Your task to perform on an android device: Go to location settings Image 0: 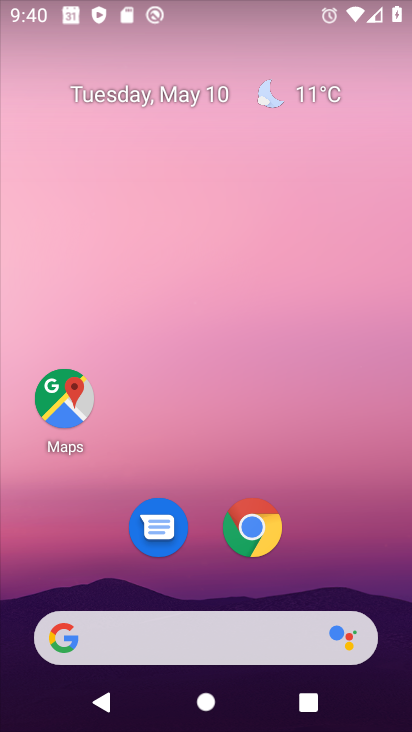
Step 0: drag from (312, 585) to (283, 17)
Your task to perform on an android device: Go to location settings Image 1: 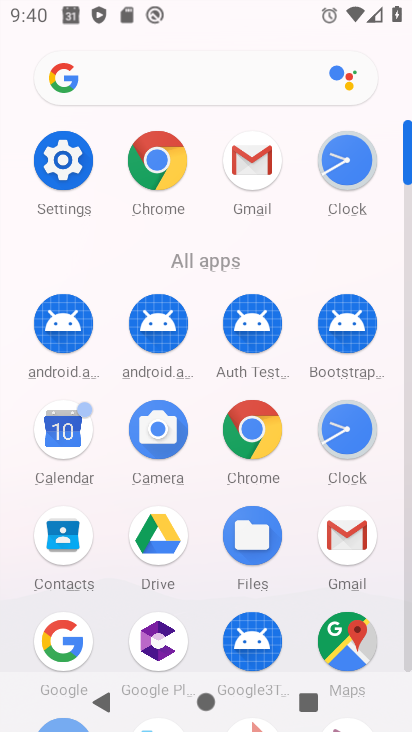
Step 1: click (55, 162)
Your task to perform on an android device: Go to location settings Image 2: 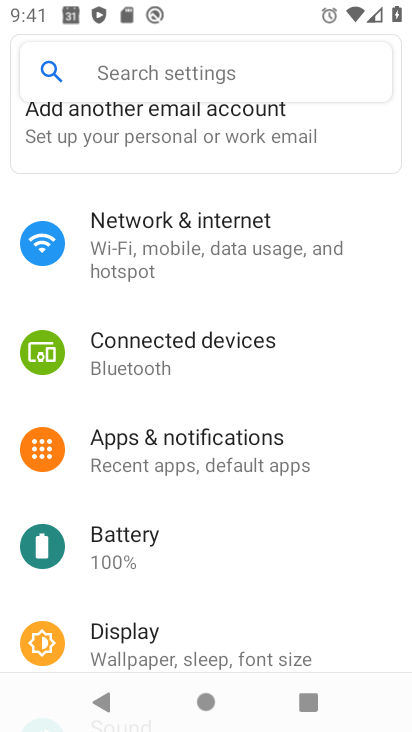
Step 2: drag from (272, 555) to (245, 253)
Your task to perform on an android device: Go to location settings Image 3: 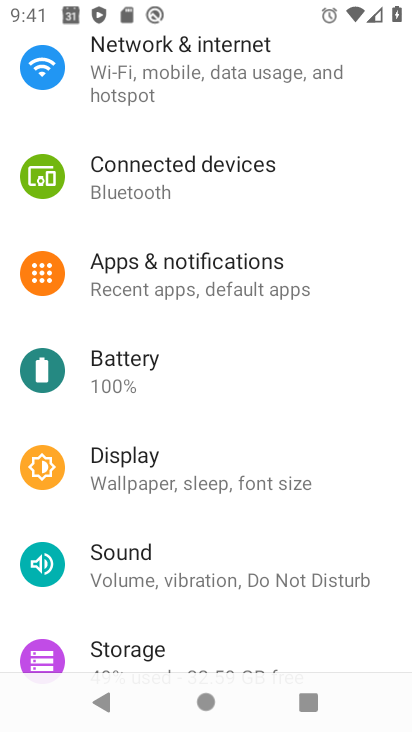
Step 3: drag from (257, 612) to (241, 380)
Your task to perform on an android device: Go to location settings Image 4: 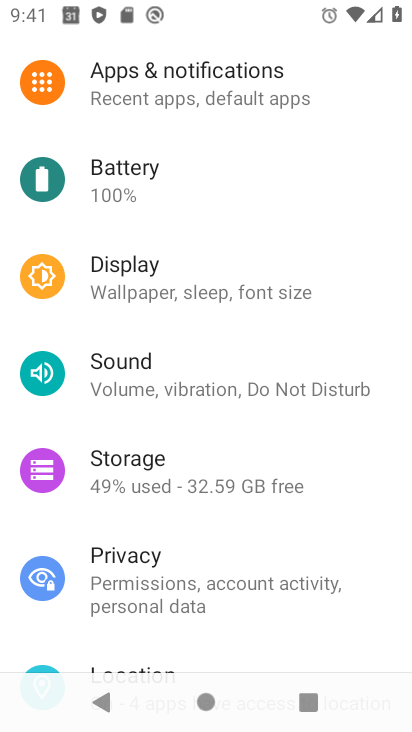
Step 4: drag from (265, 536) to (218, 229)
Your task to perform on an android device: Go to location settings Image 5: 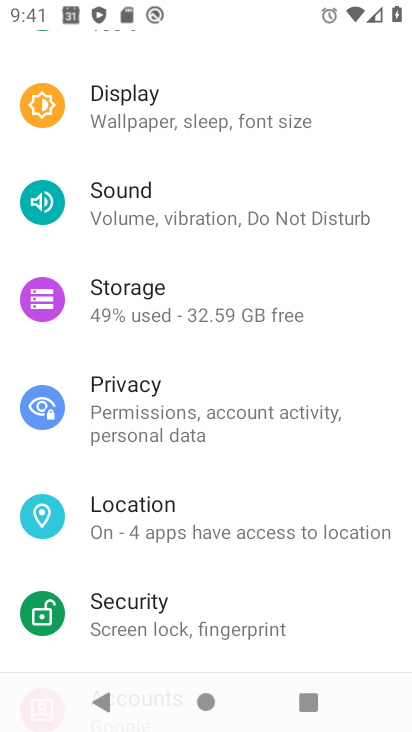
Step 5: click (226, 514)
Your task to perform on an android device: Go to location settings Image 6: 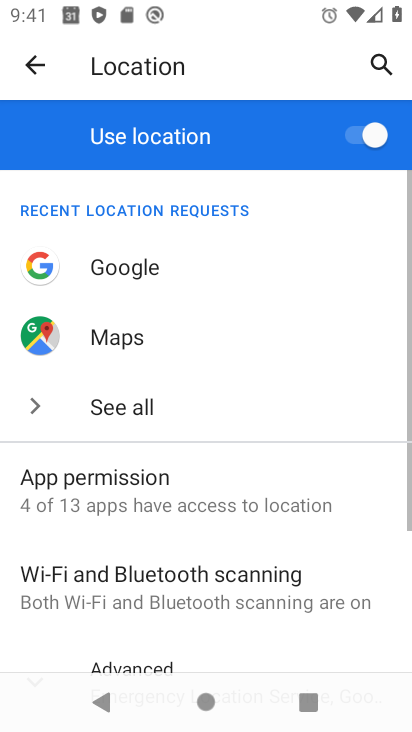
Step 6: task complete